Your task to perform on an android device: Open Youtube and go to the subscriptions tab Image 0: 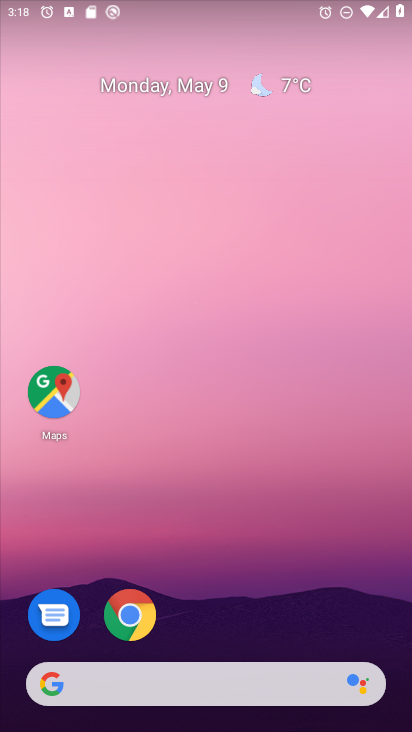
Step 0: drag from (387, 650) to (323, 32)
Your task to perform on an android device: Open Youtube and go to the subscriptions tab Image 1: 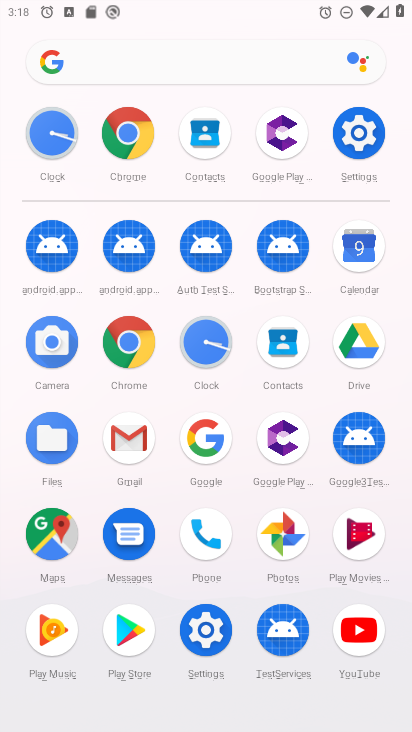
Step 1: click (356, 631)
Your task to perform on an android device: Open Youtube and go to the subscriptions tab Image 2: 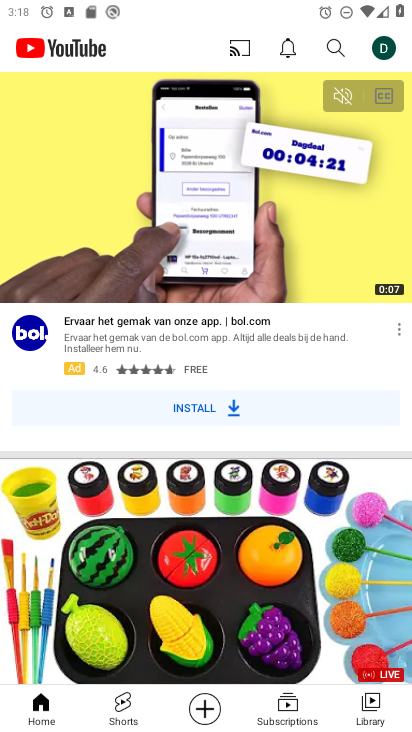
Step 2: click (284, 697)
Your task to perform on an android device: Open Youtube and go to the subscriptions tab Image 3: 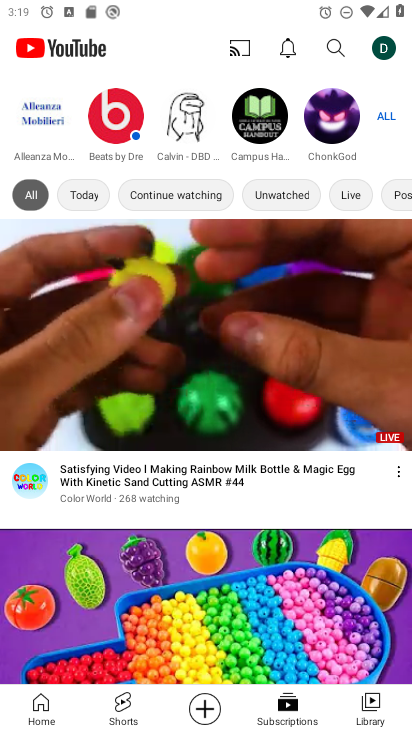
Step 3: task complete